Your task to perform on an android device: Open Chrome and go to the settings page Image 0: 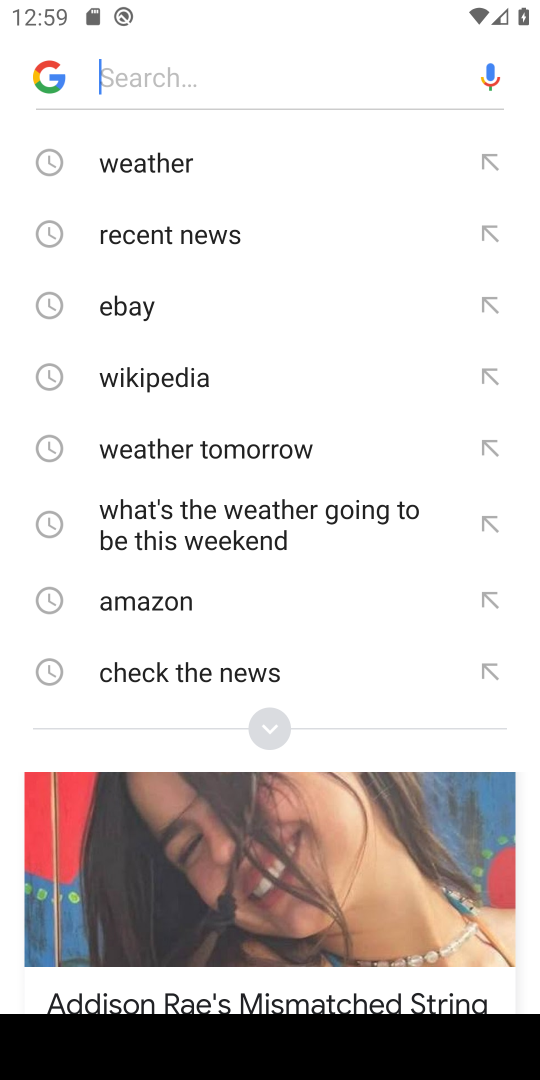
Step 0: press back button
Your task to perform on an android device: Open Chrome and go to the settings page Image 1: 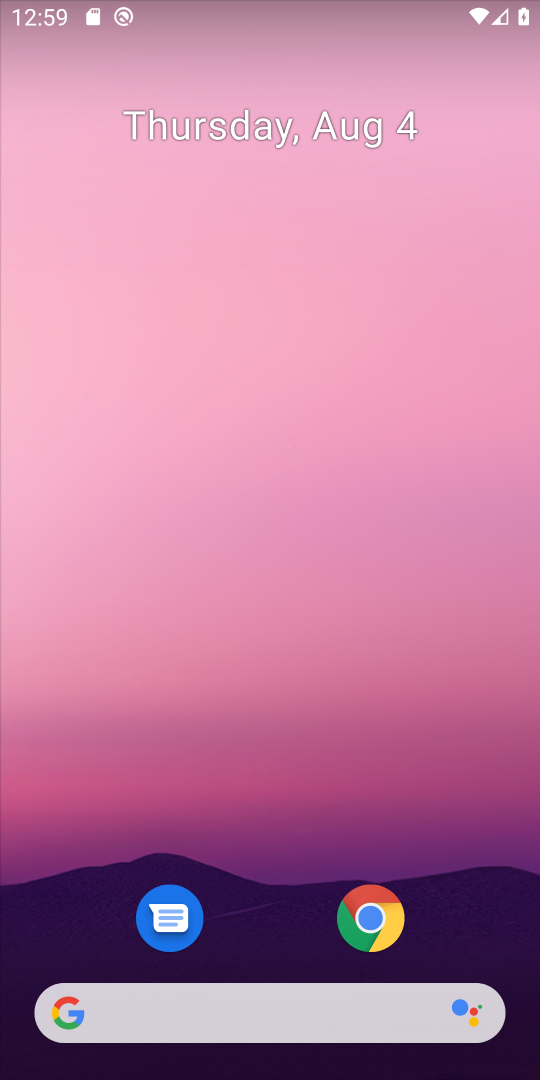
Step 1: click (360, 904)
Your task to perform on an android device: Open Chrome and go to the settings page Image 2: 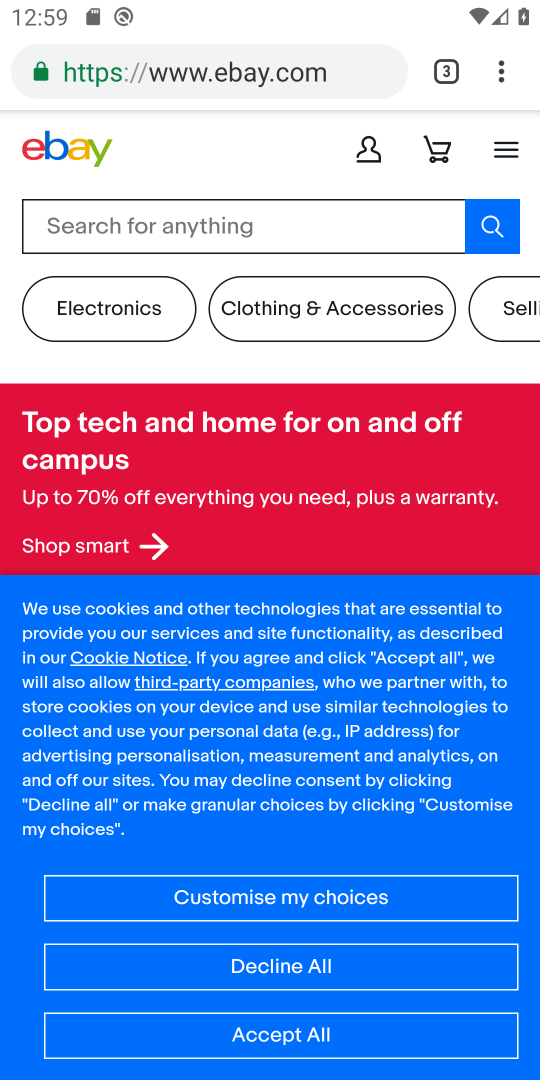
Step 2: click (504, 54)
Your task to perform on an android device: Open Chrome and go to the settings page Image 3: 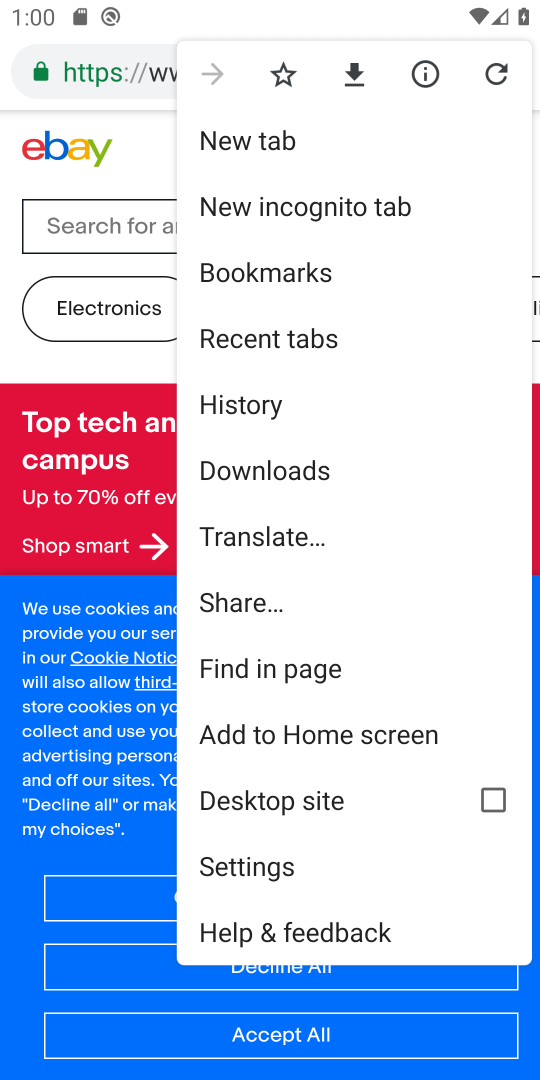
Step 3: click (291, 852)
Your task to perform on an android device: Open Chrome and go to the settings page Image 4: 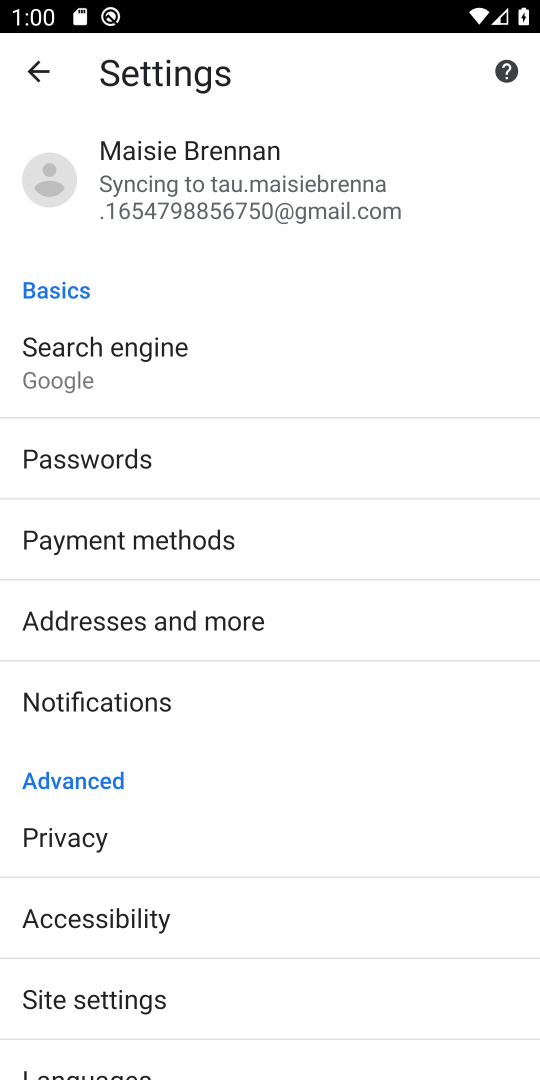
Step 4: task complete